Your task to perform on an android device: turn on the 12-hour format for clock Image 0: 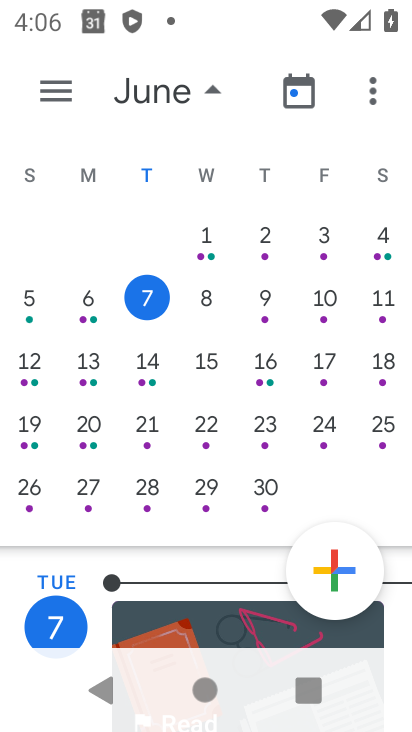
Step 0: press home button
Your task to perform on an android device: turn on the 12-hour format for clock Image 1: 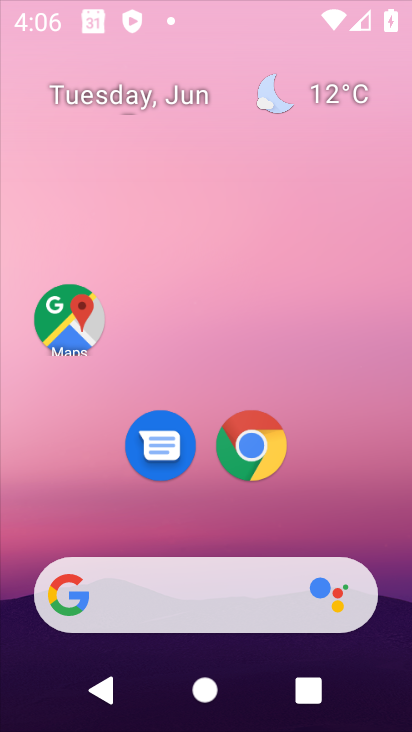
Step 1: drag from (356, 517) to (334, 28)
Your task to perform on an android device: turn on the 12-hour format for clock Image 2: 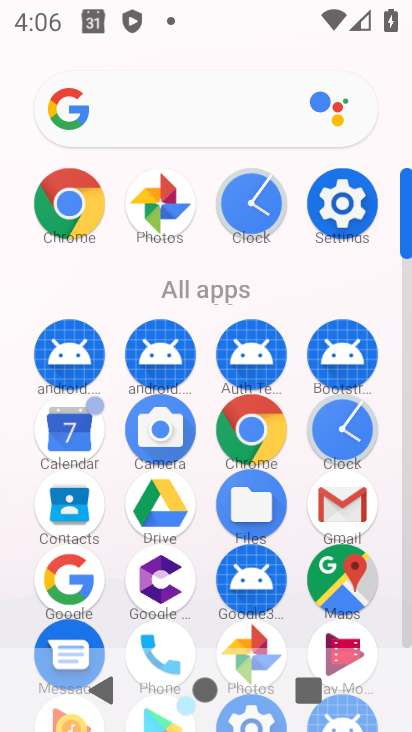
Step 2: click (246, 189)
Your task to perform on an android device: turn on the 12-hour format for clock Image 3: 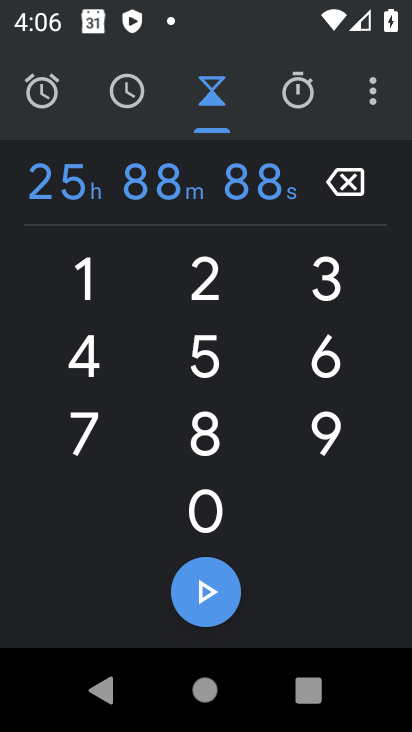
Step 3: click (370, 83)
Your task to perform on an android device: turn on the 12-hour format for clock Image 4: 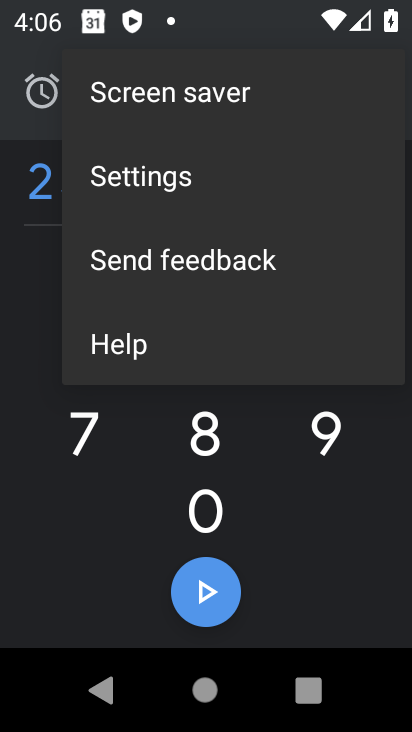
Step 4: click (195, 172)
Your task to perform on an android device: turn on the 12-hour format for clock Image 5: 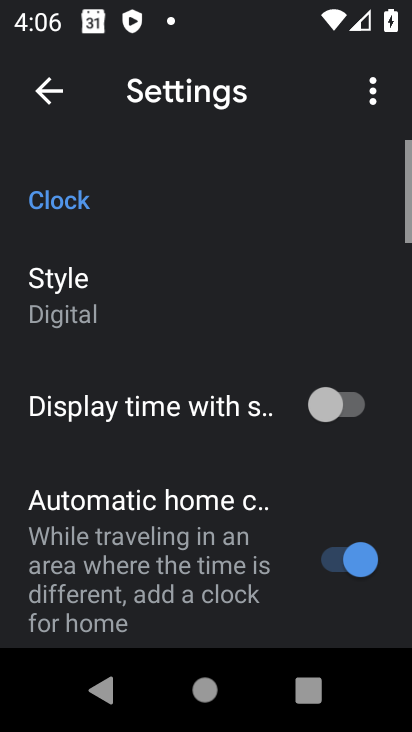
Step 5: drag from (204, 554) to (293, 137)
Your task to perform on an android device: turn on the 12-hour format for clock Image 6: 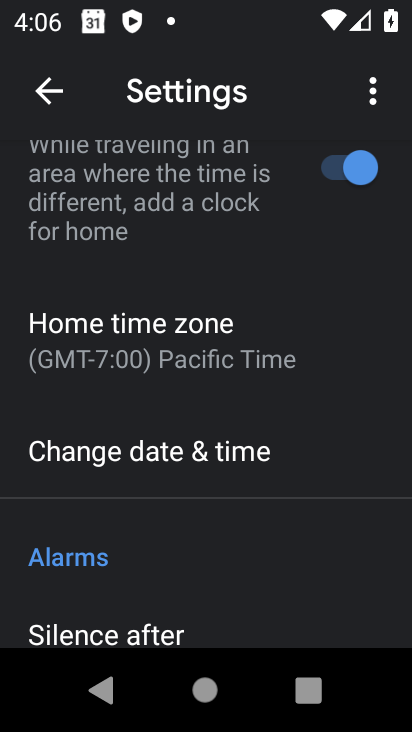
Step 6: click (124, 458)
Your task to perform on an android device: turn on the 12-hour format for clock Image 7: 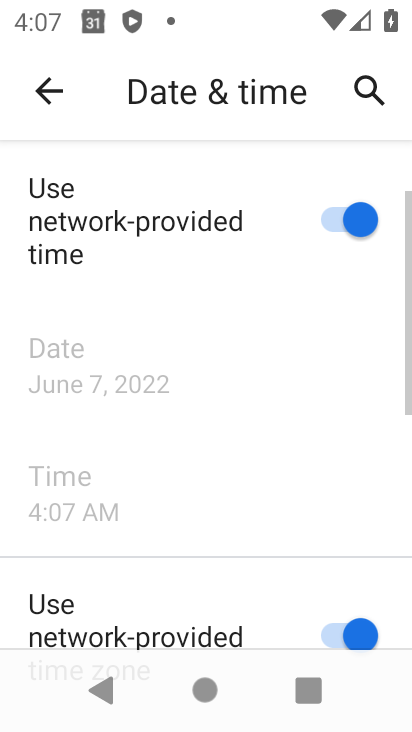
Step 7: task complete